Your task to perform on an android device: What's the weather? Image 0: 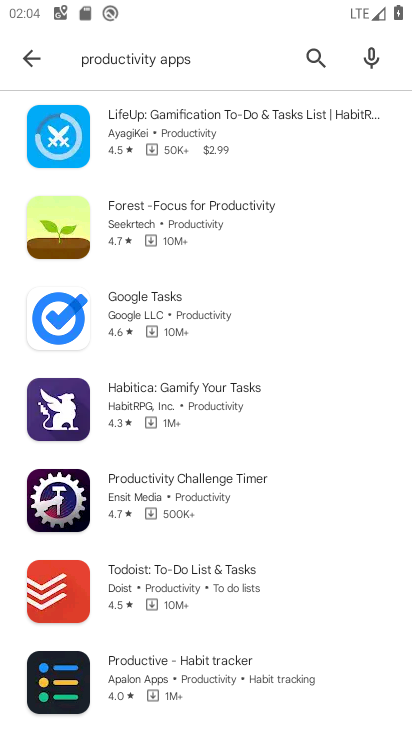
Step 0: drag from (190, 494) to (154, 342)
Your task to perform on an android device: What's the weather? Image 1: 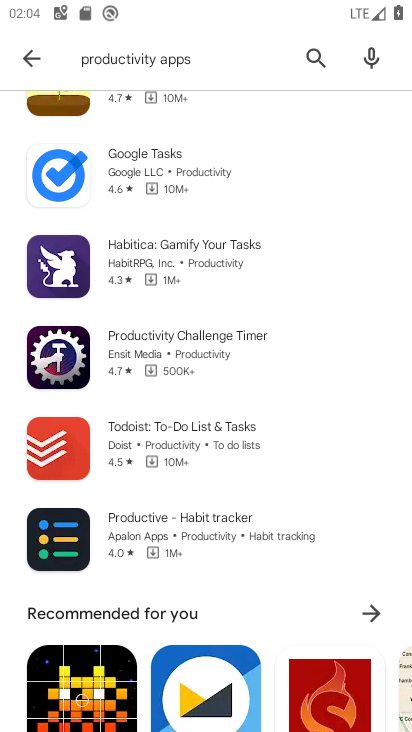
Step 1: press home button
Your task to perform on an android device: What's the weather? Image 2: 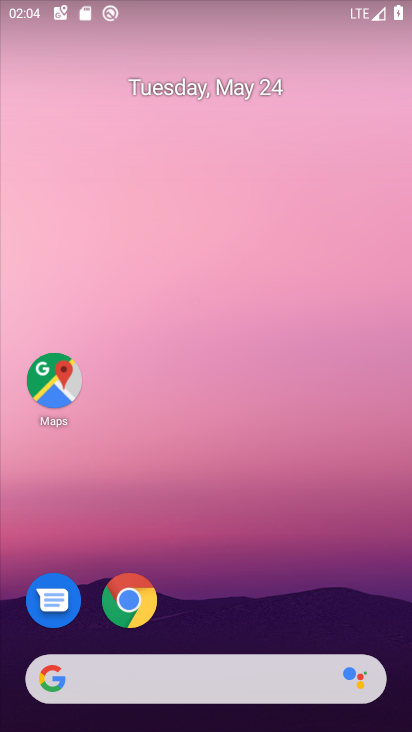
Step 2: click (82, 664)
Your task to perform on an android device: What's the weather? Image 3: 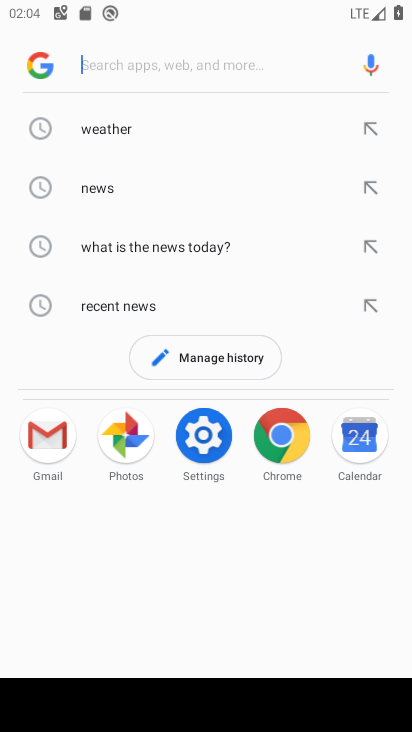
Step 3: click (105, 124)
Your task to perform on an android device: What's the weather? Image 4: 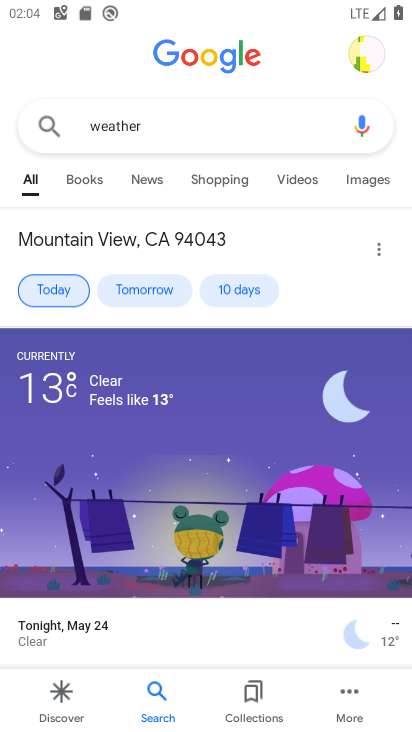
Step 4: task complete